Your task to perform on an android device: toggle notification dots Image 0: 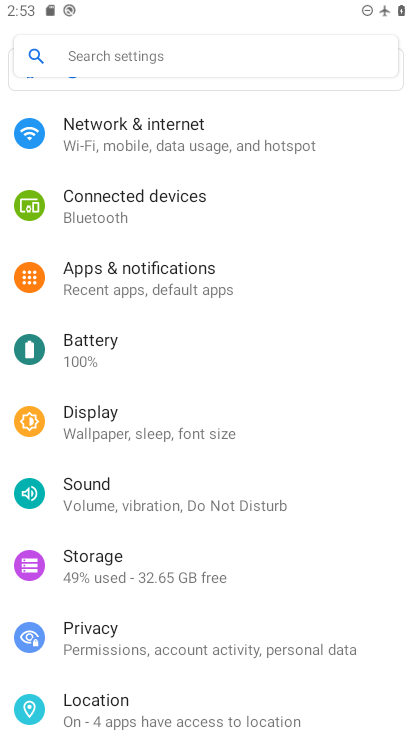
Step 0: click (128, 265)
Your task to perform on an android device: toggle notification dots Image 1: 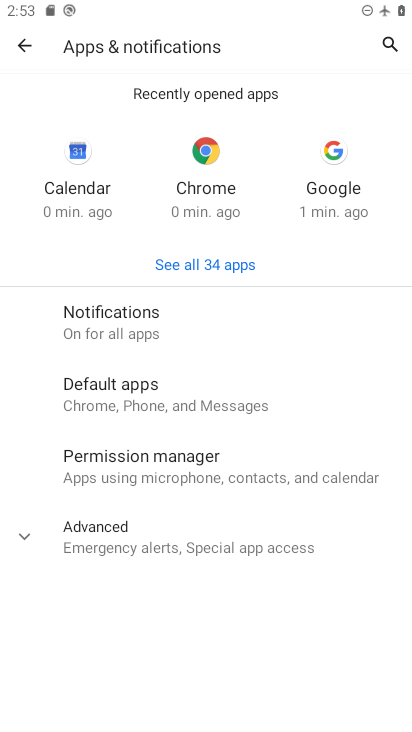
Step 1: click (89, 325)
Your task to perform on an android device: toggle notification dots Image 2: 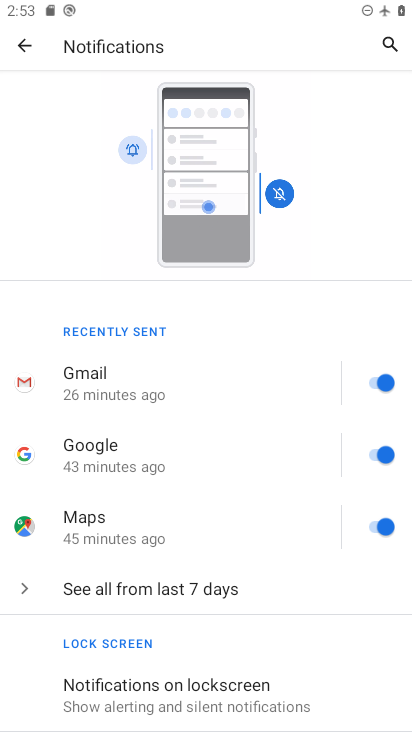
Step 2: drag from (246, 604) to (254, 181)
Your task to perform on an android device: toggle notification dots Image 3: 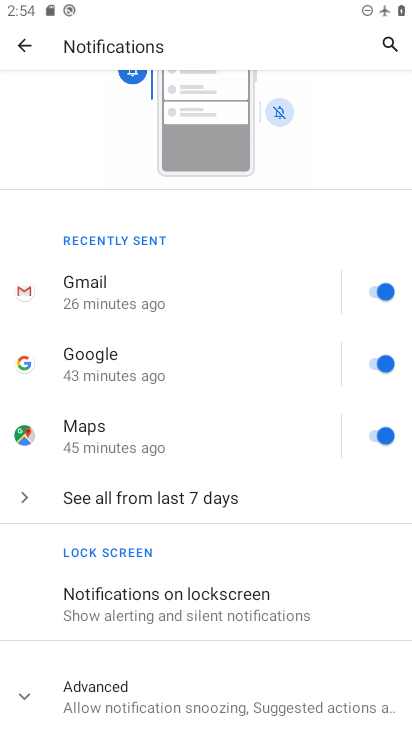
Step 3: click (23, 698)
Your task to perform on an android device: toggle notification dots Image 4: 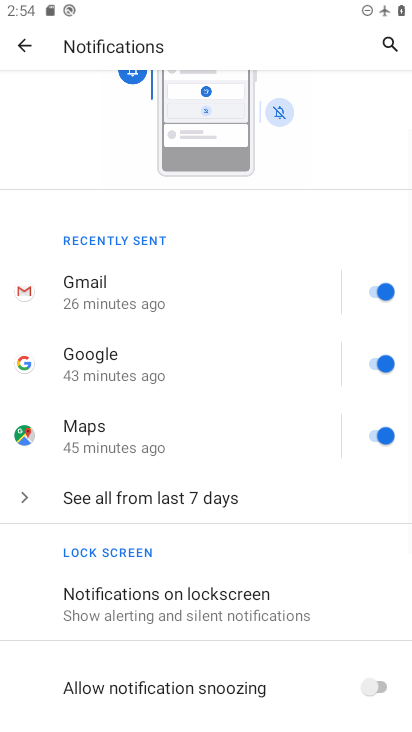
Step 4: drag from (299, 673) to (301, 248)
Your task to perform on an android device: toggle notification dots Image 5: 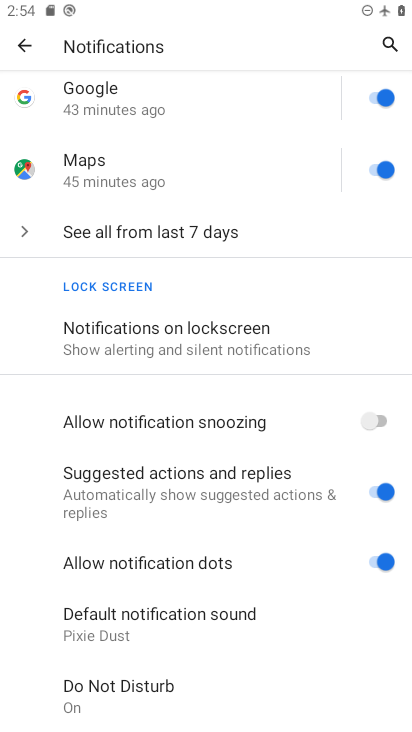
Step 5: click (371, 562)
Your task to perform on an android device: toggle notification dots Image 6: 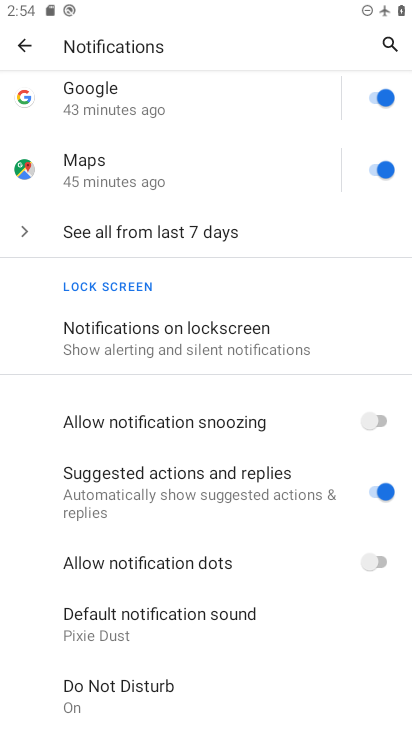
Step 6: task complete